Your task to perform on an android device: Set the phone to "Do not disturb". Image 0: 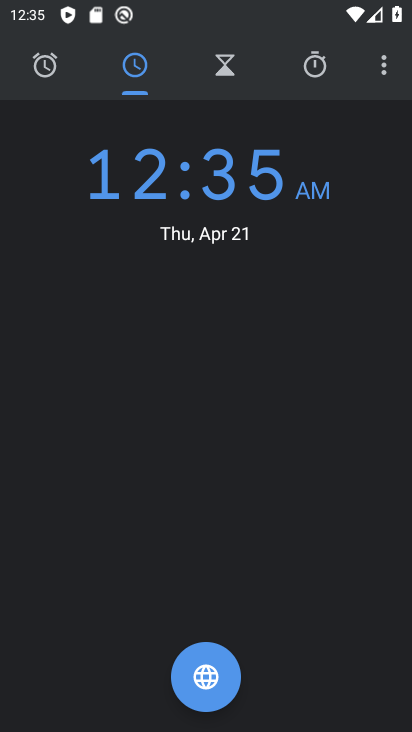
Step 0: press home button
Your task to perform on an android device: Set the phone to "Do not disturb". Image 1: 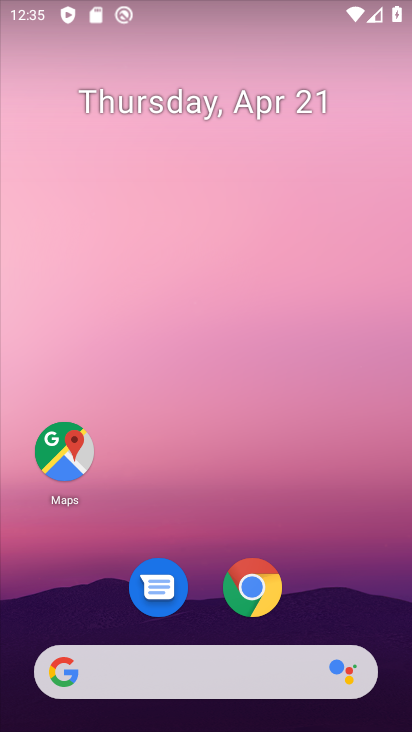
Step 1: drag from (334, 596) to (342, 6)
Your task to perform on an android device: Set the phone to "Do not disturb". Image 2: 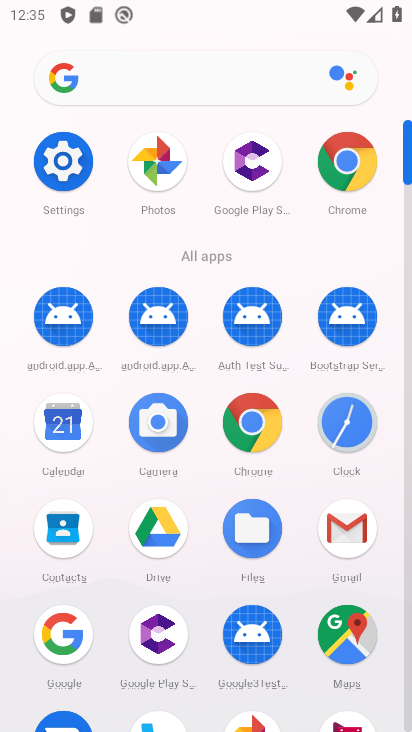
Step 2: click (62, 161)
Your task to perform on an android device: Set the phone to "Do not disturb". Image 3: 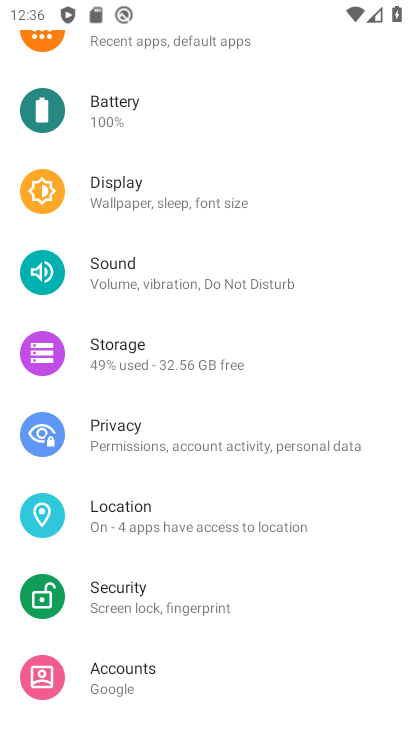
Step 3: click (114, 271)
Your task to perform on an android device: Set the phone to "Do not disturb". Image 4: 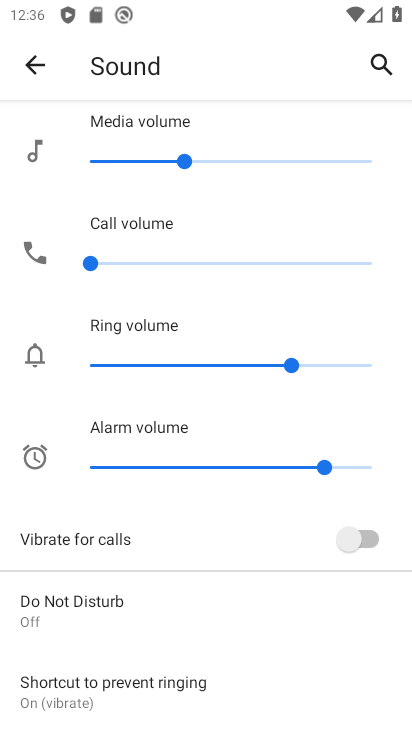
Step 4: click (50, 603)
Your task to perform on an android device: Set the phone to "Do not disturb". Image 5: 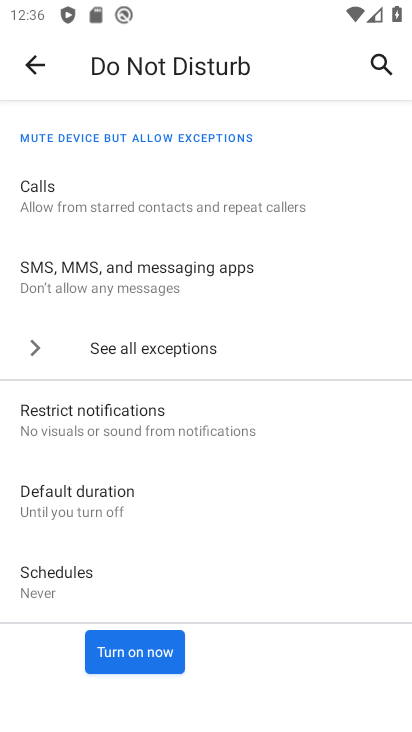
Step 5: click (130, 660)
Your task to perform on an android device: Set the phone to "Do not disturb". Image 6: 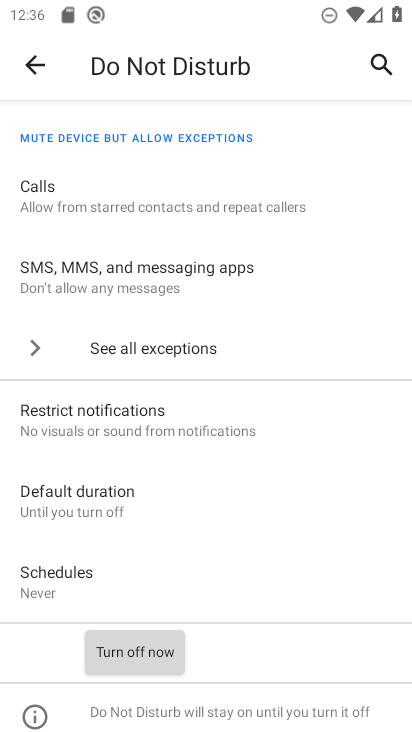
Step 6: task complete